Your task to perform on an android device: When is my next meeting? Image 0: 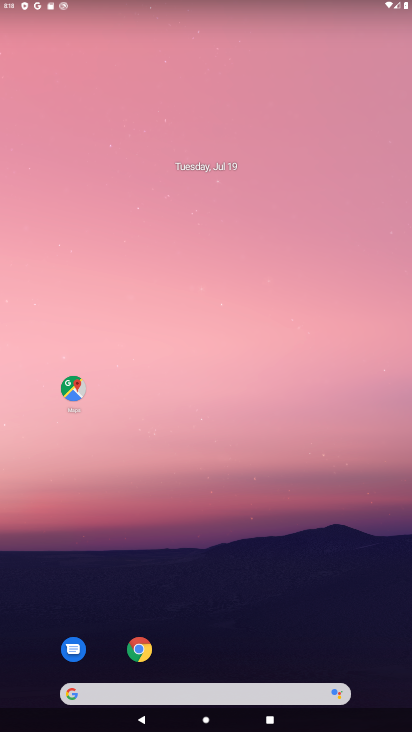
Step 0: drag from (211, 654) to (246, 119)
Your task to perform on an android device: When is my next meeting? Image 1: 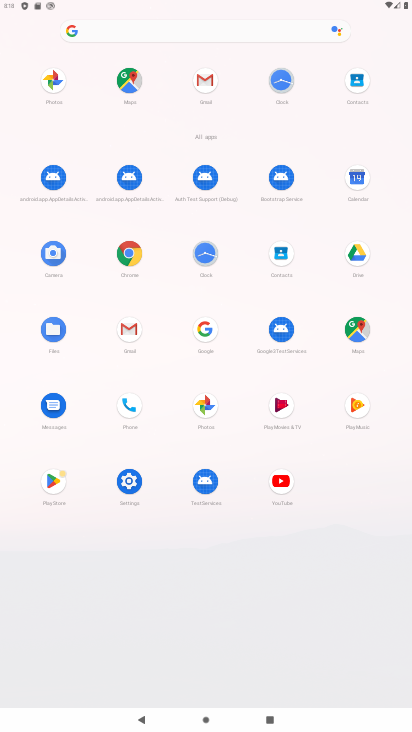
Step 1: click (354, 179)
Your task to perform on an android device: When is my next meeting? Image 2: 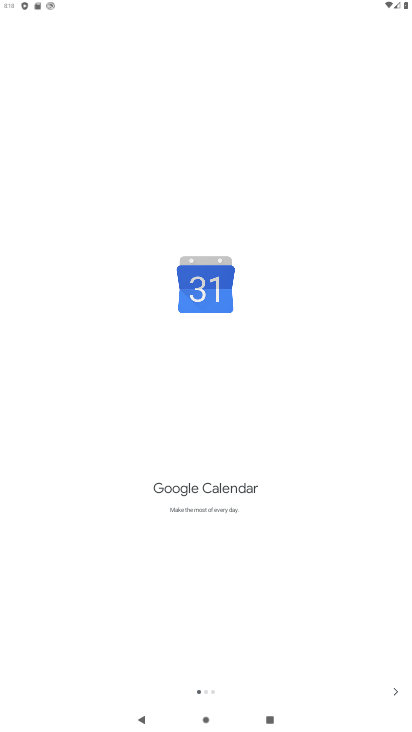
Step 2: click (392, 698)
Your task to perform on an android device: When is my next meeting? Image 3: 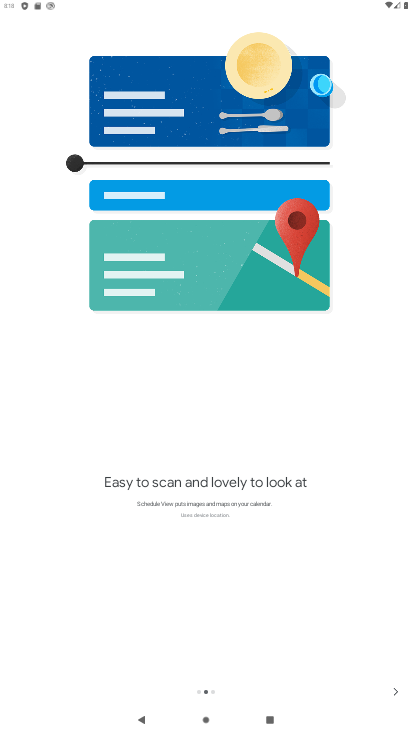
Step 3: click (392, 698)
Your task to perform on an android device: When is my next meeting? Image 4: 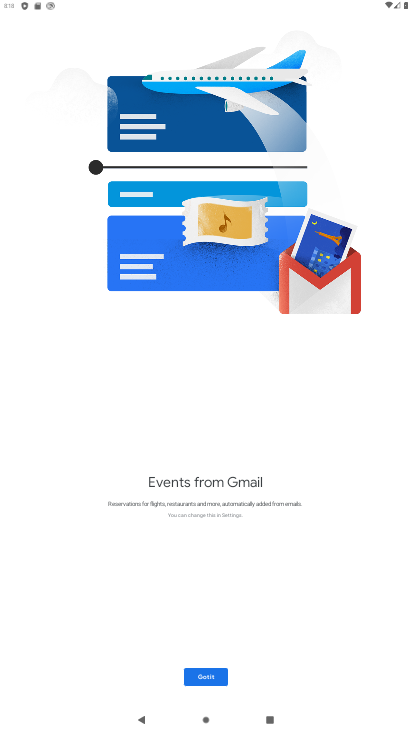
Step 4: click (216, 676)
Your task to perform on an android device: When is my next meeting? Image 5: 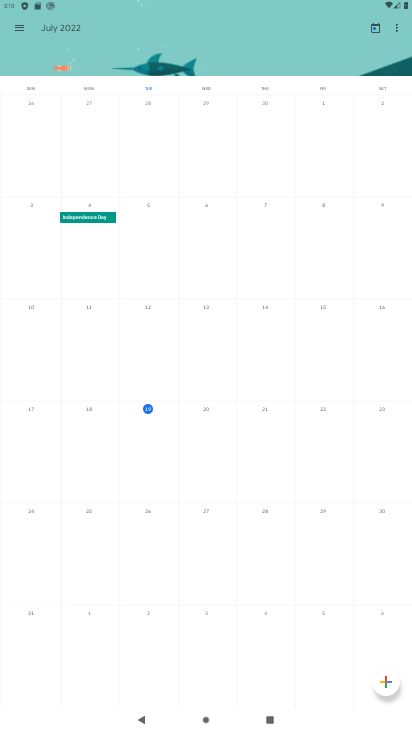
Step 5: click (207, 414)
Your task to perform on an android device: When is my next meeting? Image 6: 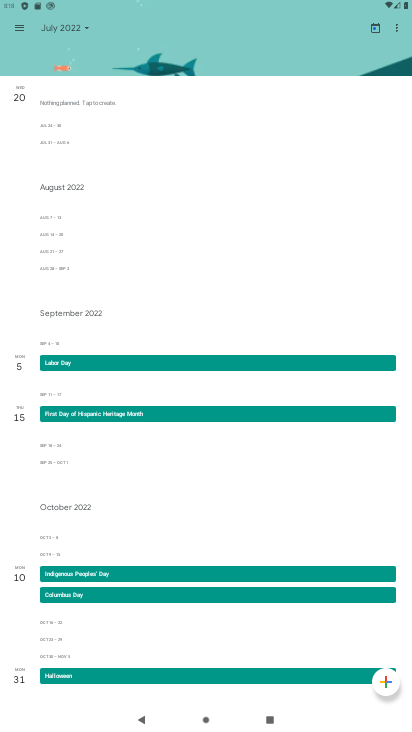
Step 6: task complete